Your task to perform on an android device: Go to CNN.com Image 0: 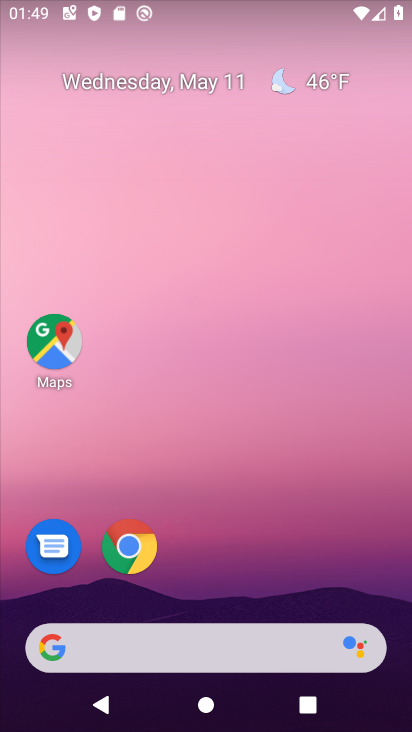
Step 0: click (170, 651)
Your task to perform on an android device: Go to CNN.com Image 1: 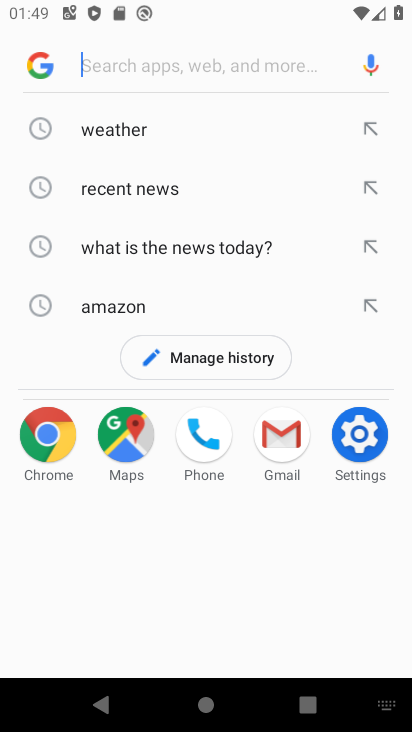
Step 1: click (225, 67)
Your task to perform on an android device: Go to CNN.com Image 2: 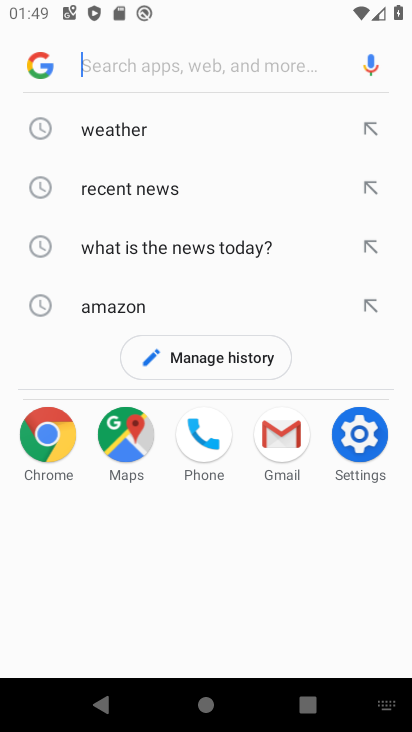
Step 2: type "cnn"
Your task to perform on an android device: Go to CNN.com Image 3: 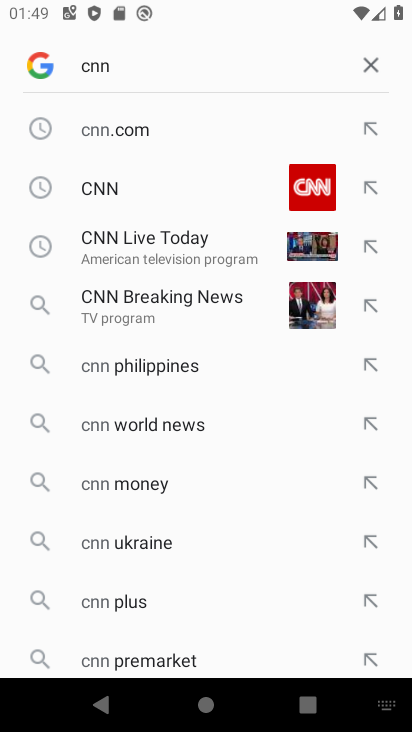
Step 3: click (125, 115)
Your task to perform on an android device: Go to CNN.com Image 4: 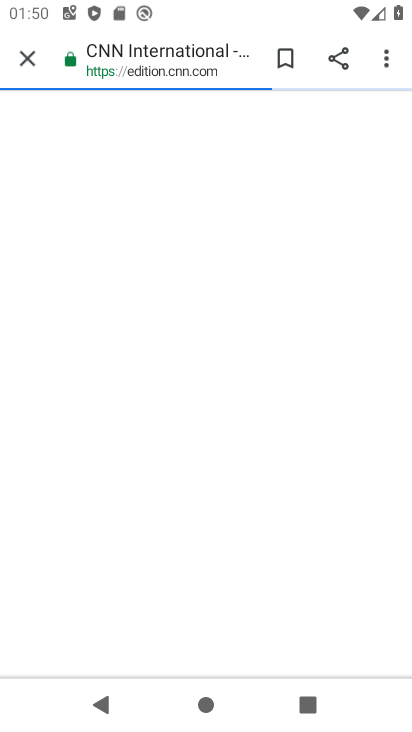
Step 4: task complete